Your task to perform on an android device: Open location settings Image 0: 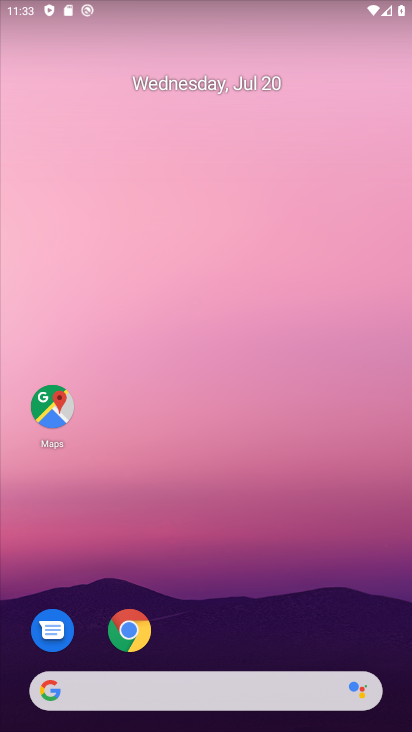
Step 0: drag from (193, 623) to (193, 421)
Your task to perform on an android device: Open location settings Image 1: 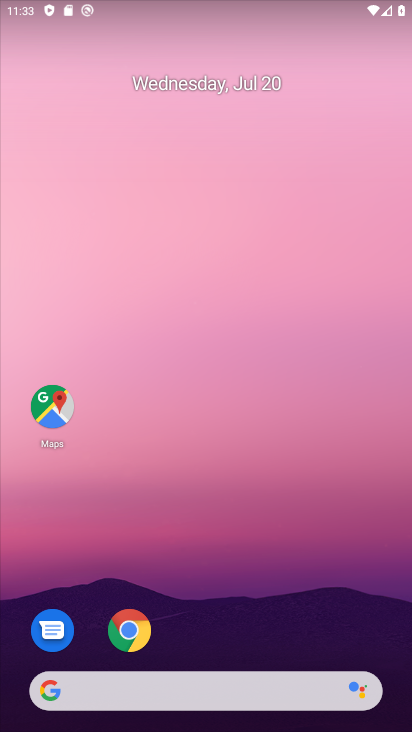
Step 1: drag from (189, 646) to (182, 77)
Your task to perform on an android device: Open location settings Image 2: 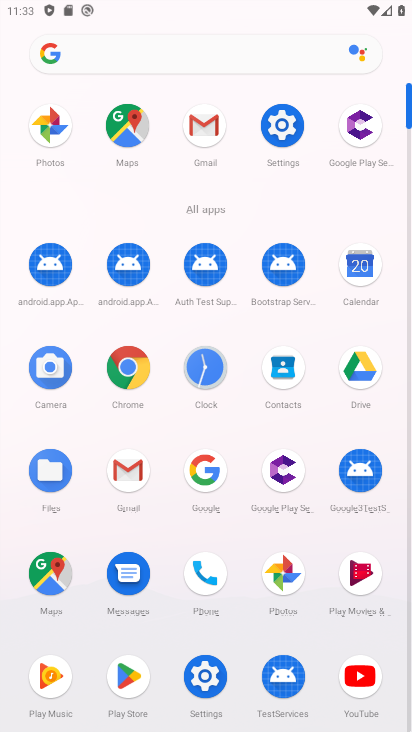
Step 2: click (283, 121)
Your task to perform on an android device: Open location settings Image 3: 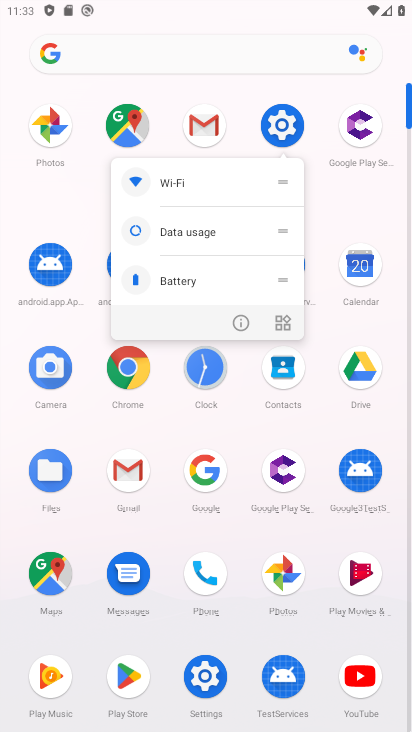
Step 3: click (235, 323)
Your task to perform on an android device: Open location settings Image 4: 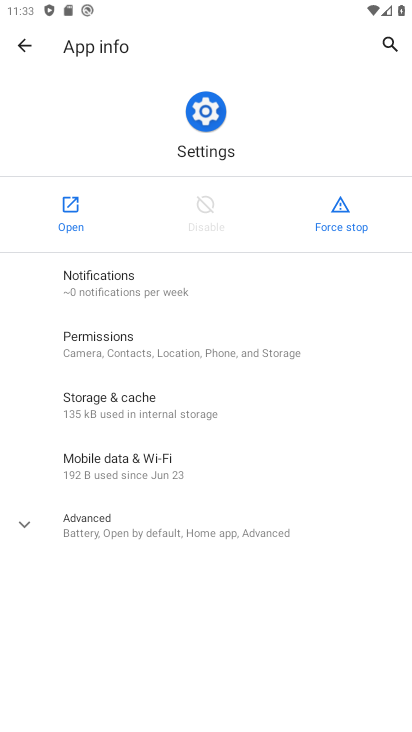
Step 4: click (69, 216)
Your task to perform on an android device: Open location settings Image 5: 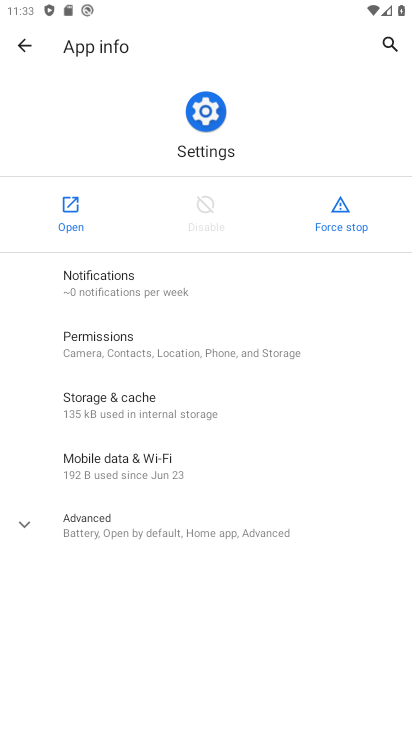
Step 5: click (69, 216)
Your task to perform on an android device: Open location settings Image 6: 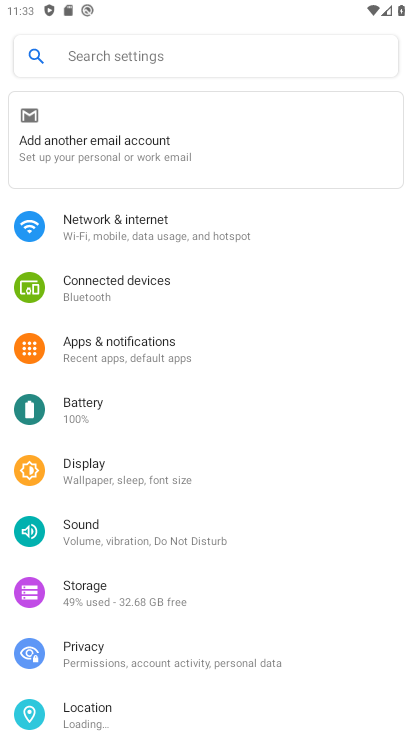
Step 6: drag from (116, 601) to (140, 255)
Your task to perform on an android device: Open location settings Image 7: 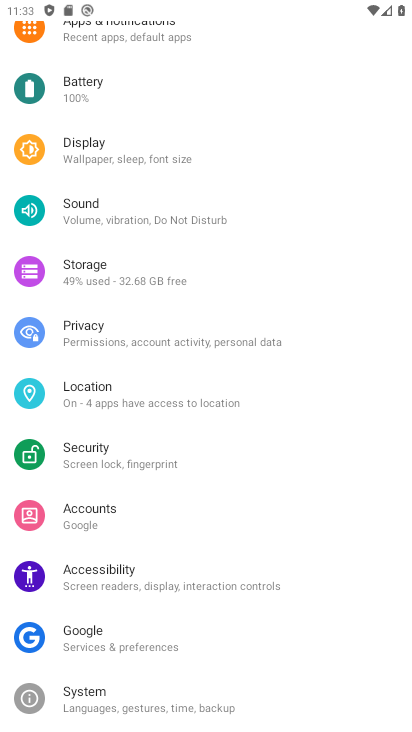
Step 7: drag from (118, 445) to (172, 218)
Your task to perform on an android device: Open location settings Image 8: 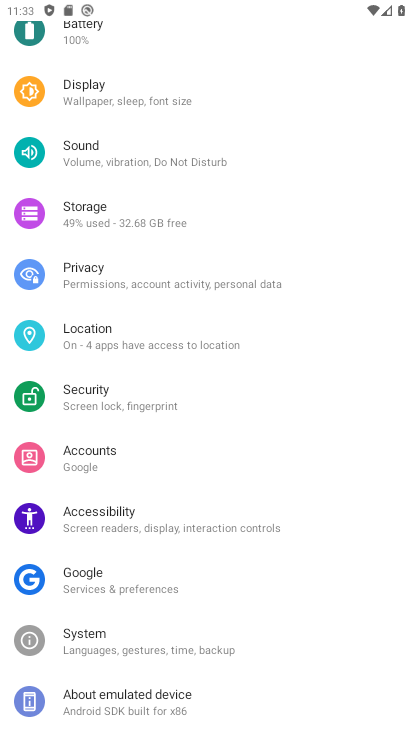
Step 8: click (102, 341)
Your task to perform on an android device: Open location settings Image 9: 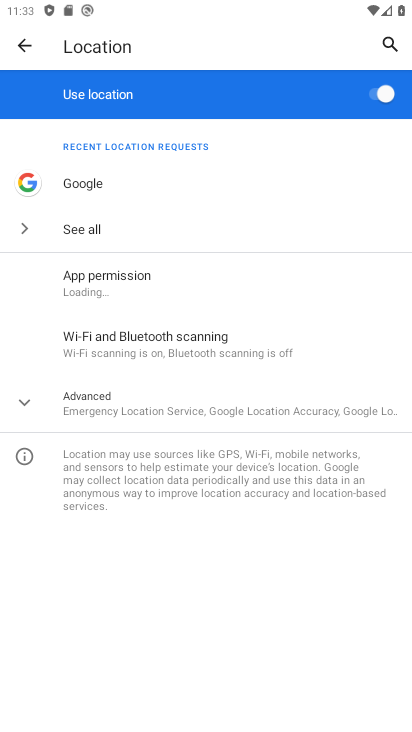
Step 9: task complete